Your task to perform on an android device: open device folders in google photos Image 0: 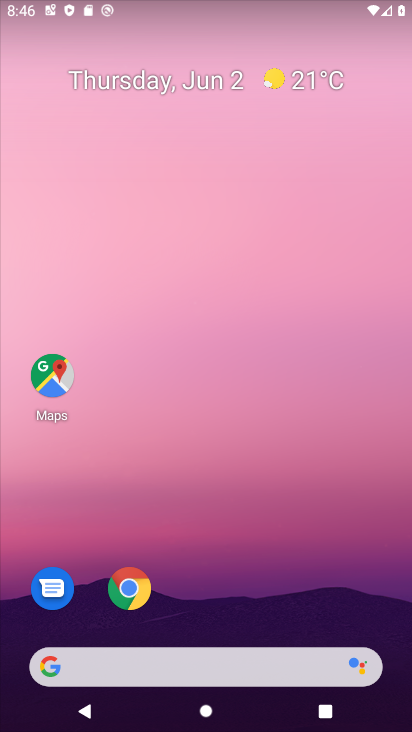
Step 0: drag from (203, 670) to (182, 79)
Your task to perform on an android device: open device folders in google photos Image 1: 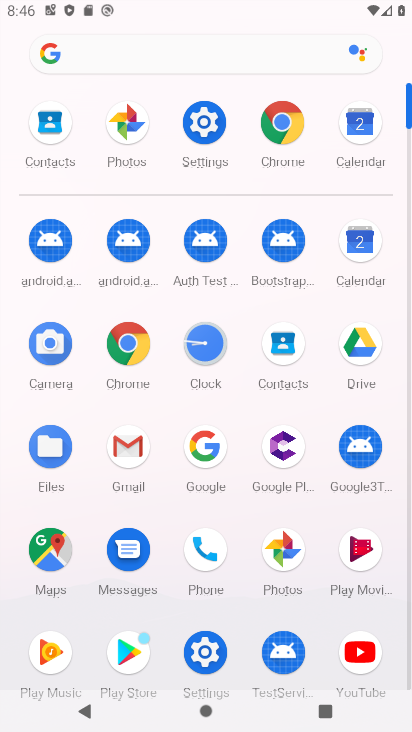
Step 1: click (276, 555)
Your task to perform on an android device: open device folders in google photos Image 2: 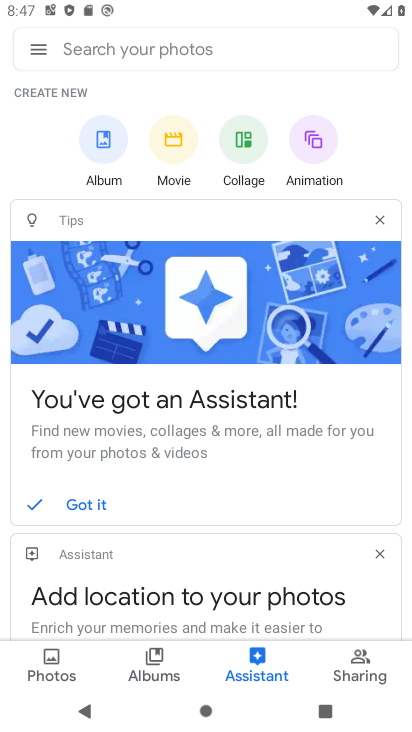
Step 2: click (48, 665)
Your task to perform on an android device: open device folders in google photos Image 3: 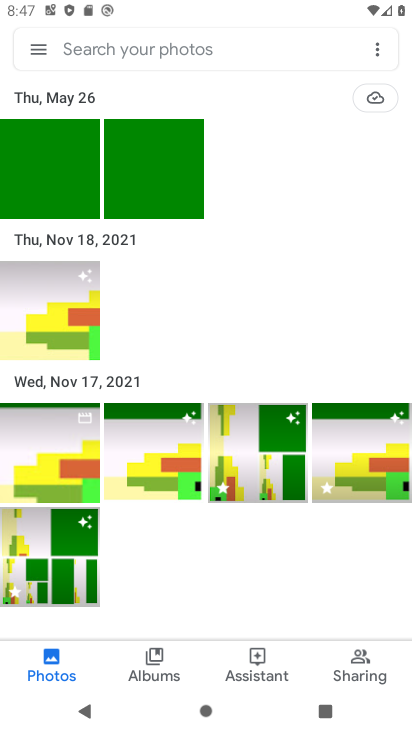
Step 3: click (168, 659)
Your task to perform on an android device: open device folders in google photos Image 4: 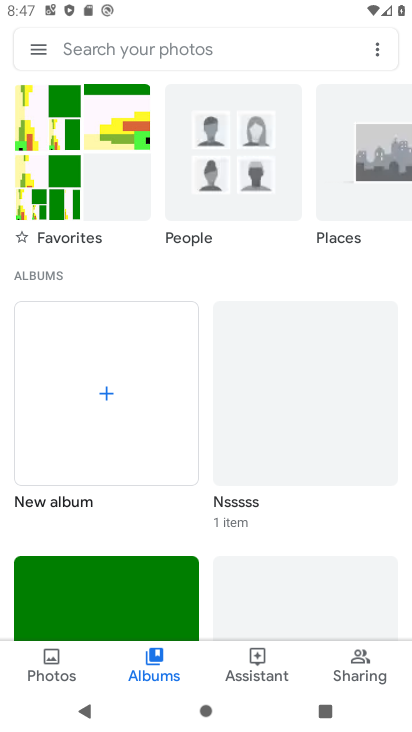
Step 4: task complete